Your task to perform on an android device: install app "Etsy: Buy & Sell Unique Items" Image 0: 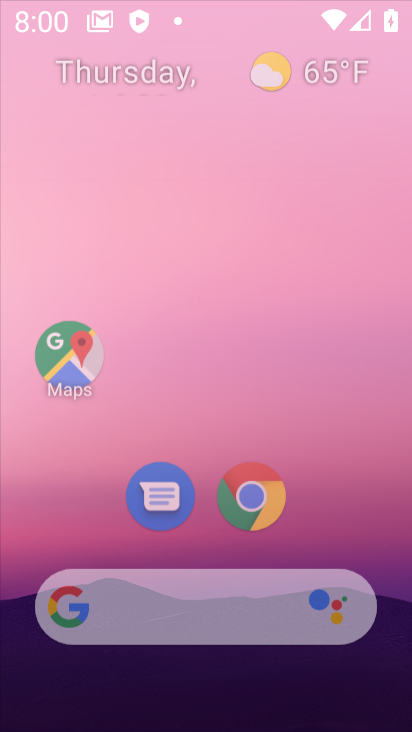
Step 0: click (214, 140)
Your task to perform on an android device: install app "Etsy: Buy & Sell Unique Items" Image 1: 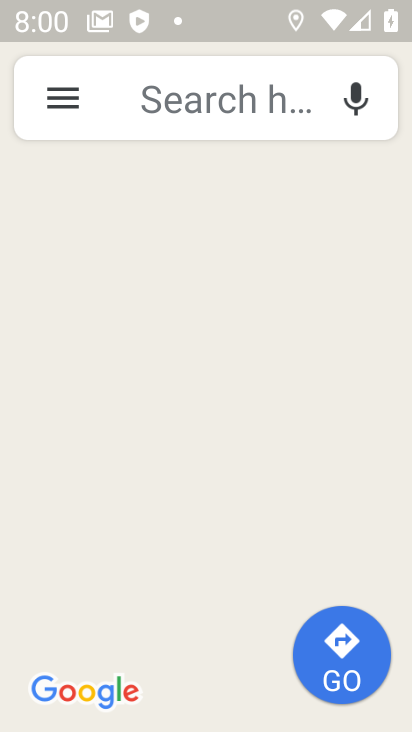
Step 1: drag from (222, 727) to (231, 211)
Your task to perform on an android device: install app "Etsy: Buy & Sell Unique Items" Image 2: 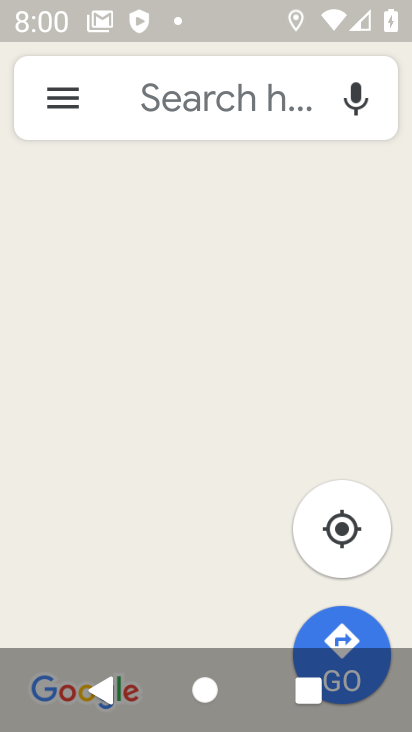
Step 2: press home button
Your task to perform on an android device: install app "Etsy: Buy & Sell Unique Items" Image 3: 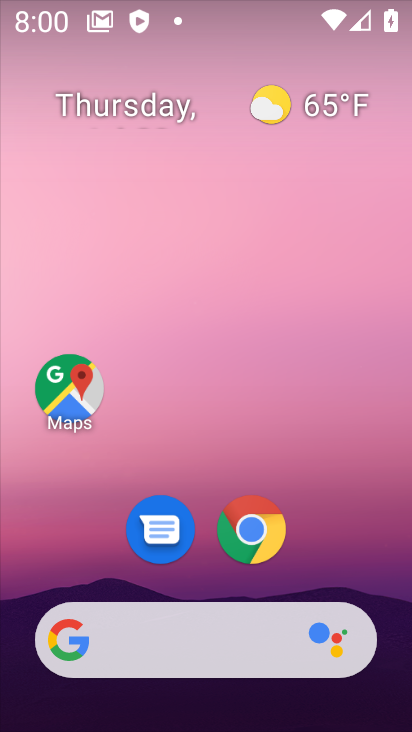
Step 3: drag from (206, 708) to (198, 18)
Your task to perform on an android device: install app "Etsy: Buy & Sell Unique Items" Image 4: 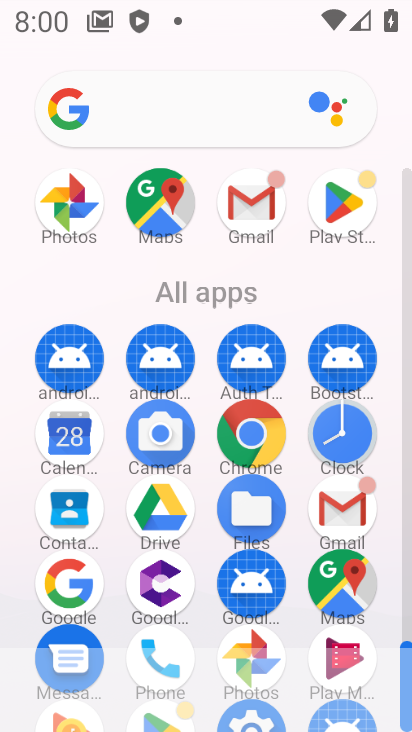
Step 4: click (340, 200)
Your task to perform on an android device: install app "Etsy: Buy & Sell Unique Items" Image 5: 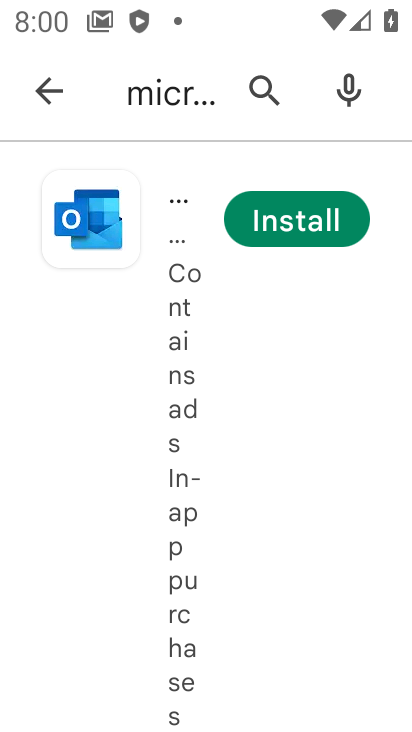
Step 5: click (266, 91)
Your task to perform on an android device: install app "Etsy: Buy & Sell Unique Items" Image 6: 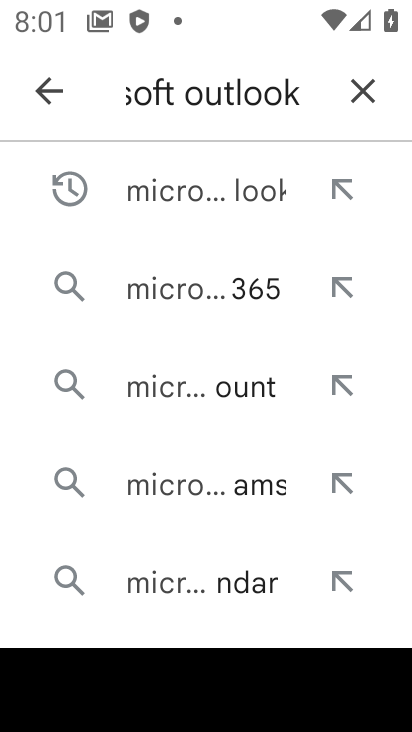
Step 6: click (361, 87)
Your task to perform on an android device: install app "Etsy: Buy & Sell Unique Items" Image 7: 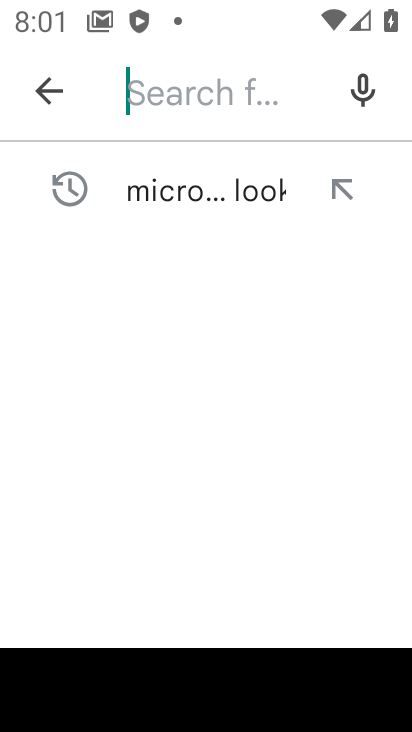
Step 7: type "Etsy: Buy & Sell Unique Items"
Your task to perform on an android device: install app "Etsy: Buy & Sell Unique Items" Image 8: 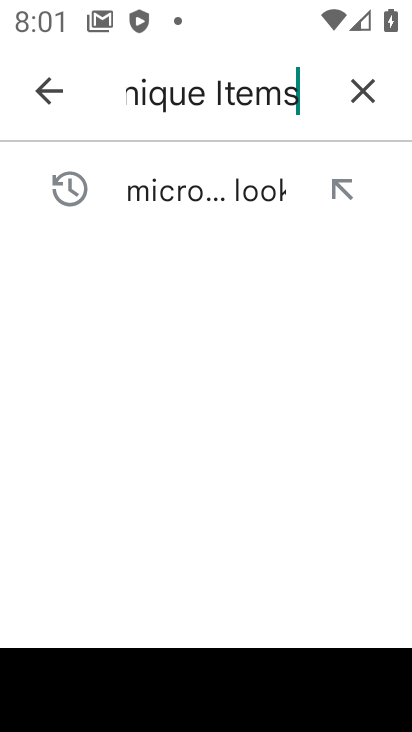
Step 8: type ""
Your task to perform on an android device: install app "Etsy: Buy & Sell Unique Items" Image 9: 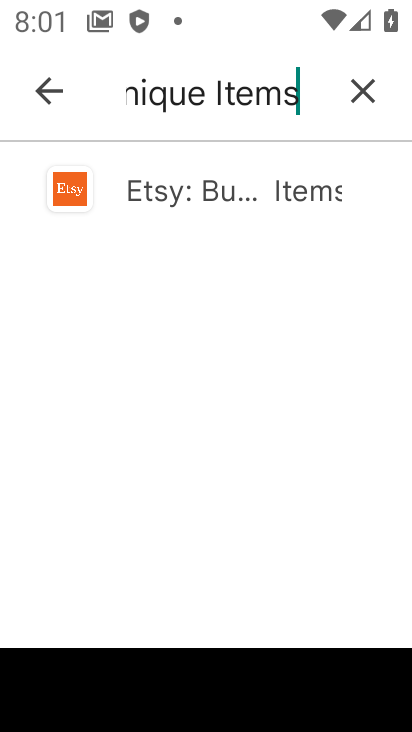
Step 9: click (166, 191)
Your task to perform on an android device: install app "Etsy: Buy & Sell Unique Items" Image 10: 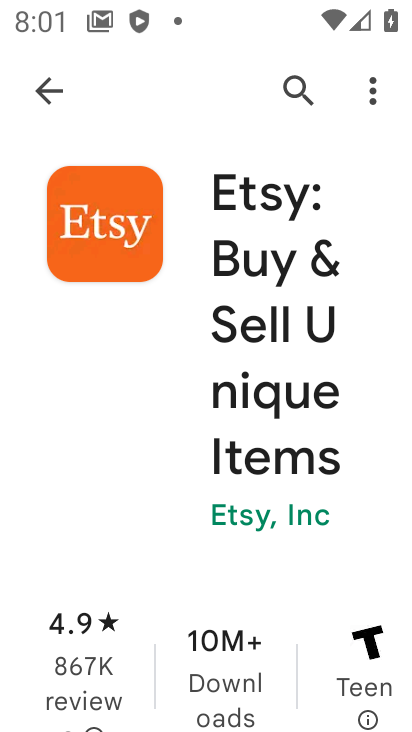
Step 10: drag from (250, 582) to (259, 257)
Your task to perform on an android device: install app "Etsy: Buy & Sell Unique Items" Image 11: 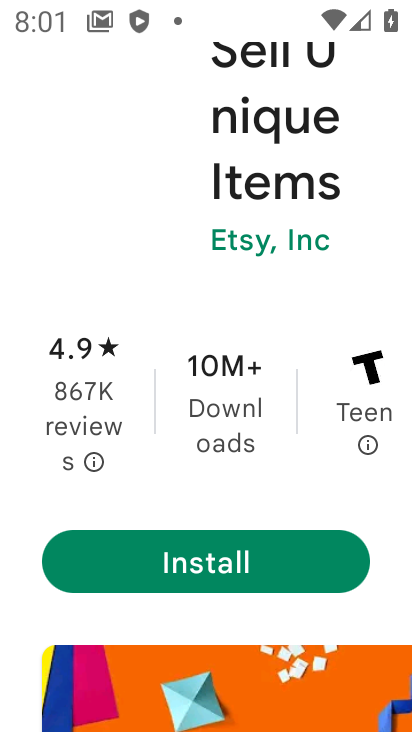
Step 11: click (184, 568)
Your task to perform on an android device: install app "Etsy: Buy & Sell Unique Items" Image 12: 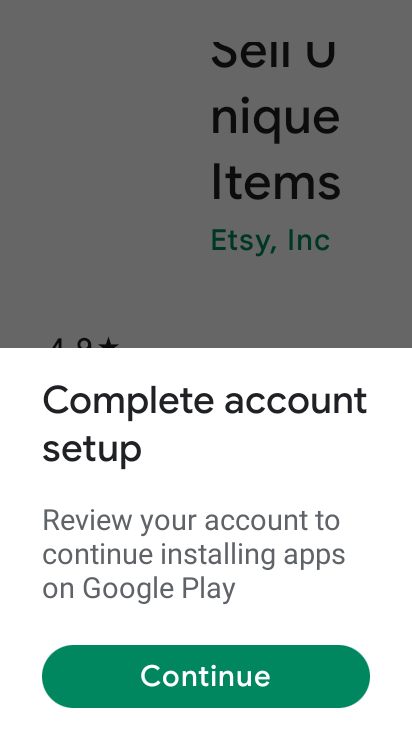
Step 12: click (235, 674)
Your task to perform on an android device: install app "Etsy: Buy & Sell Unique Items" Image 13: 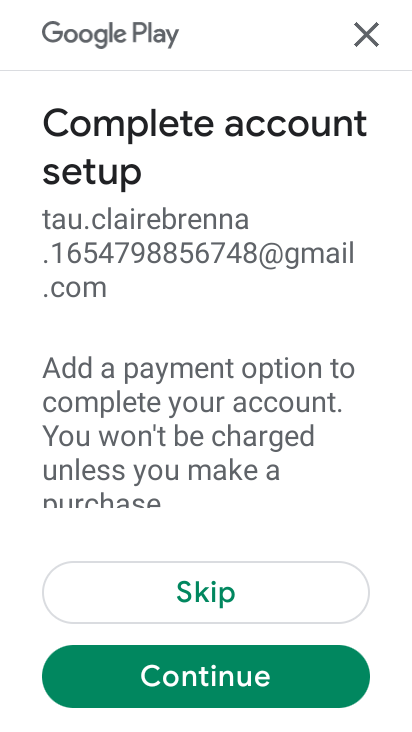
Step 13: click (219, 601)
Your task to perform on an android device: install app "Etsy: Buy & Sell Unique Items" Image 14: 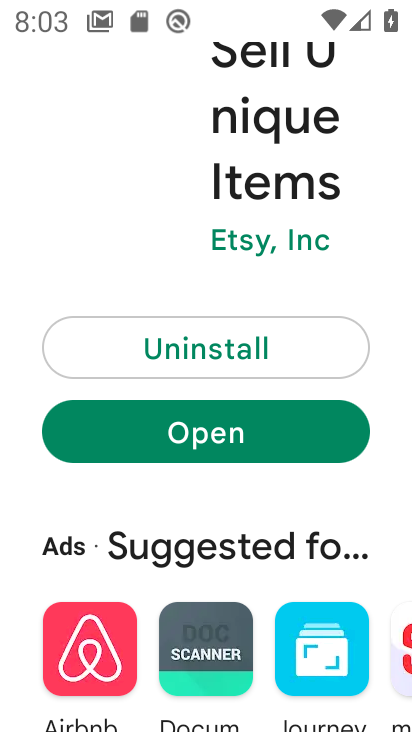
Step 14: task complete